Your task to perform on an android device: Open eBay Image 0: 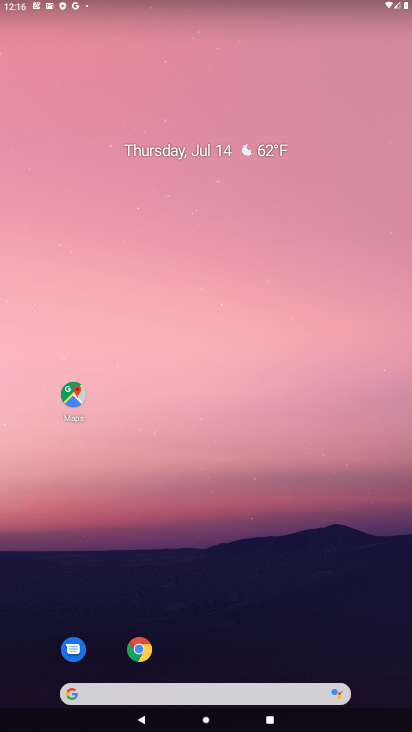
Step 0: drag from (378, 668) to (269, 63)
Your task to perform on an android device: Open eBay Image 1: 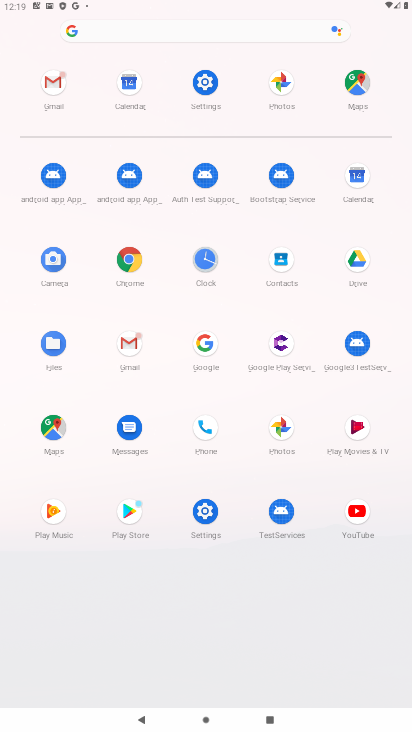
Step 1: click (220, 343)
Your task to perform on an android device: Open eBay Image 2: 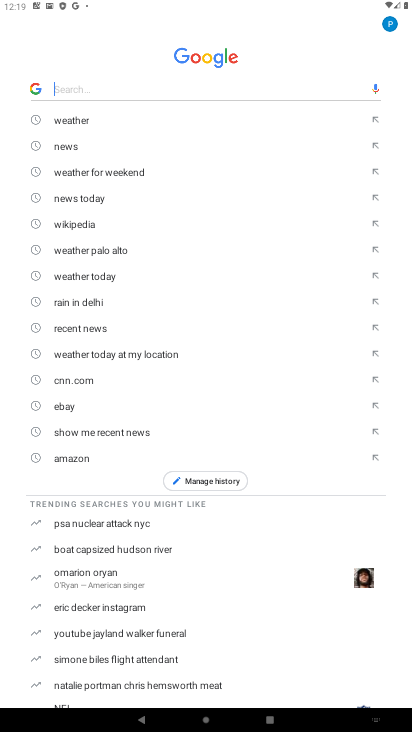
Step 2: click (75, 411)
Your task to perform on an android device: Open eBay Image 3: 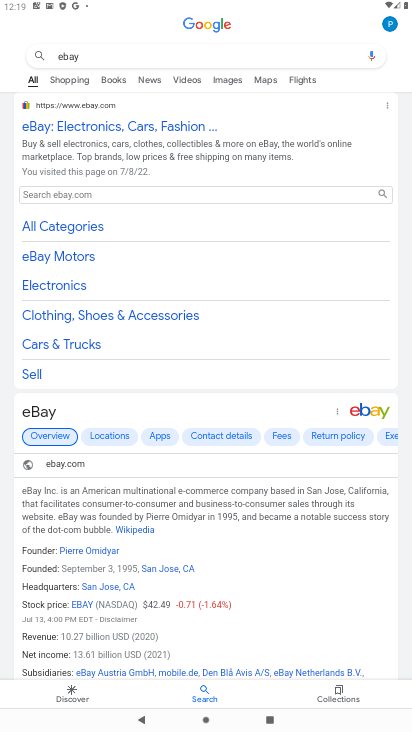
Step 3: task complete